Your task to perform on an android device: toggle priority inbox in the gmail app Image 0: 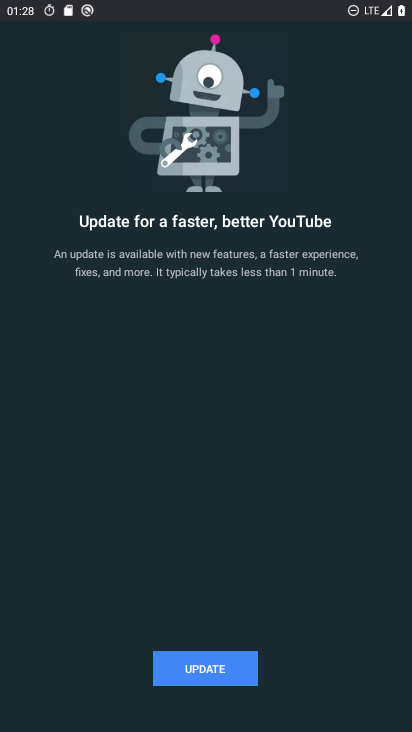
Step 0: press home button
Your task to perform on an android device: toggle priority inbox in the gmail app Image 1: 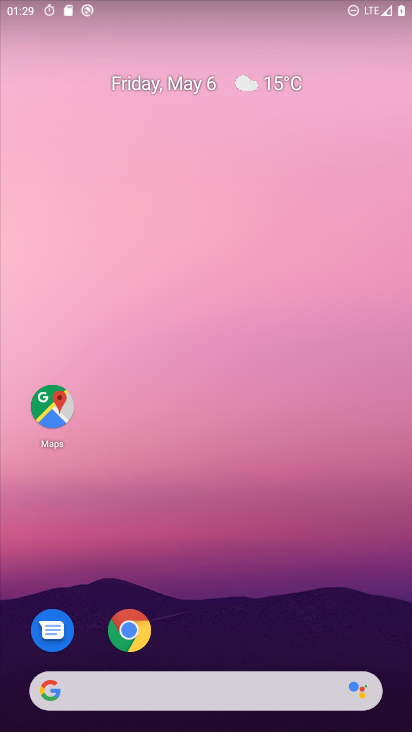
Step 1: drag from (250, 549) to (196, 168)
Your task to perform on an android device: toggle priority inbox in the gmail app Image 2: 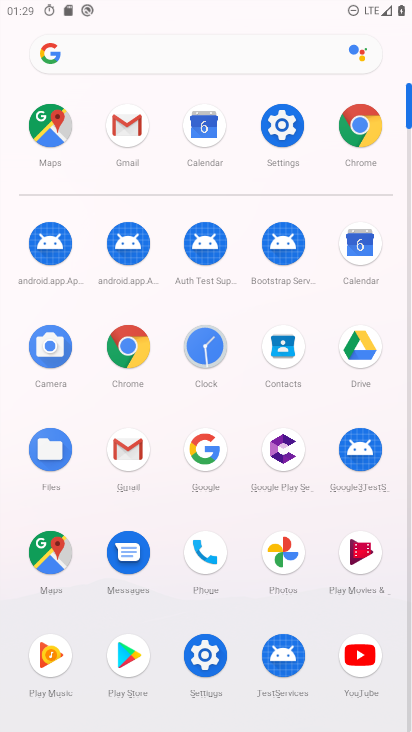
Step 2: click (127, 128)
Your task to perform on an android device: toggle priority inbox in the gmail app Image 3: 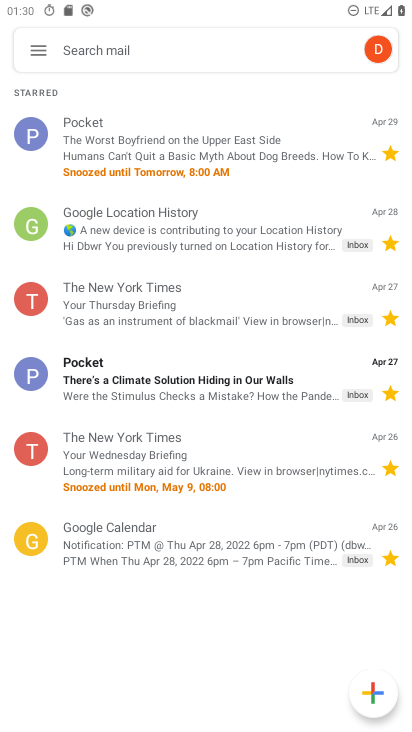
Step 3: click (40, 50)
Your task to perform on an android device: toggle priority inbox in the gmail app Image 4: 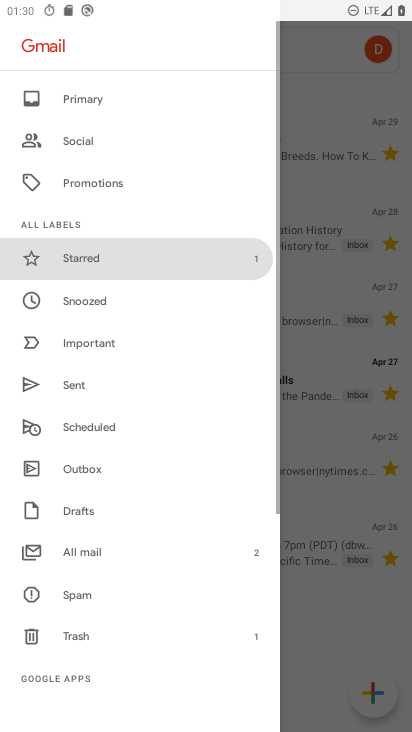
Step 4: drag from (85, 680) to (165, 52)
Your task to perform on an android device: toggle priority inbox in the gmail app Image 5: 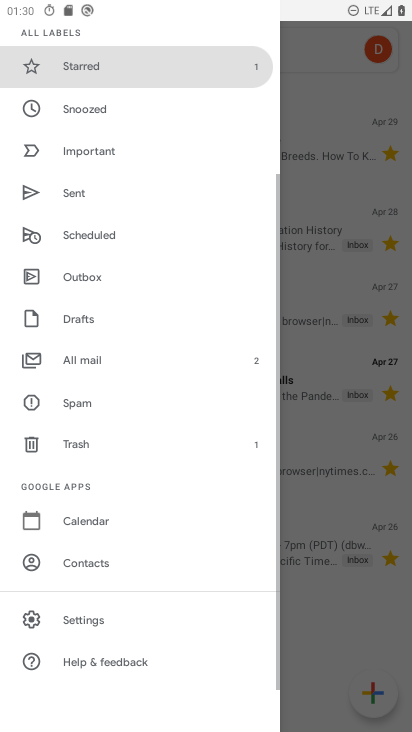
Step 5: click (86, 619)
Your task to perform on an android device: toggle priority inbox in the gmail app Image 6: 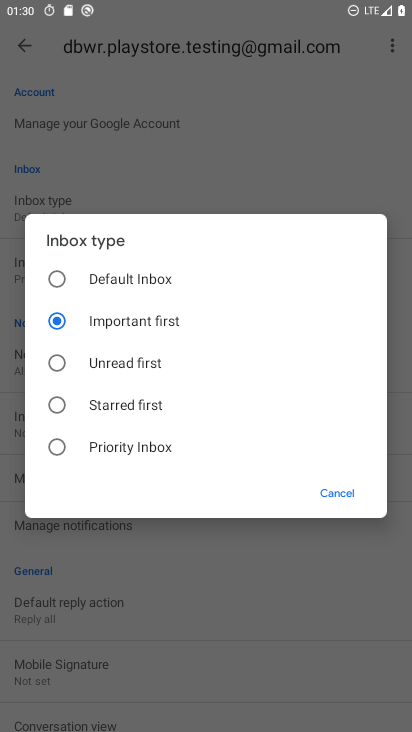
Step 6: click (143, 452)
Your task to perform on an android device: toggle priority inbox in the gmail app Image 7: 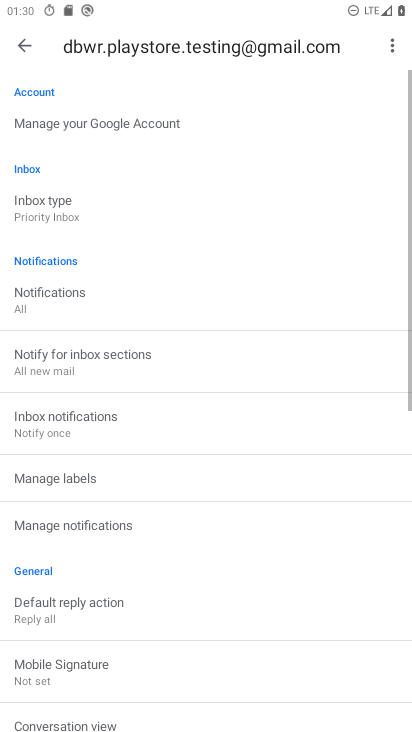
Step 7: task complete